Your task to perform on an android device: change notifications settings Image 0: 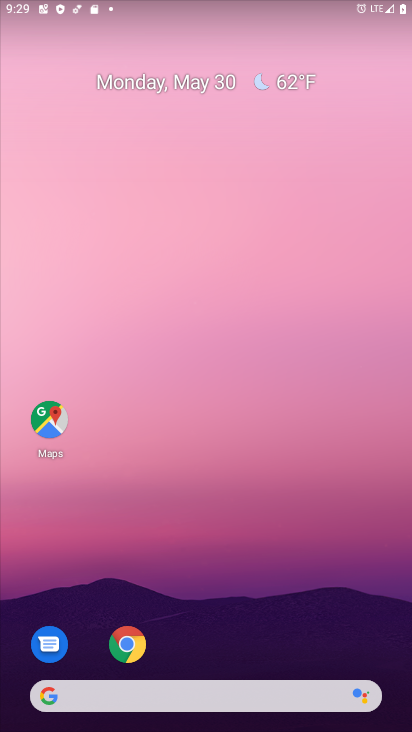
Step 0: drag from (395, 650) to (327, 115)
Your task to perform on an android device: change notifications settings Image 1: 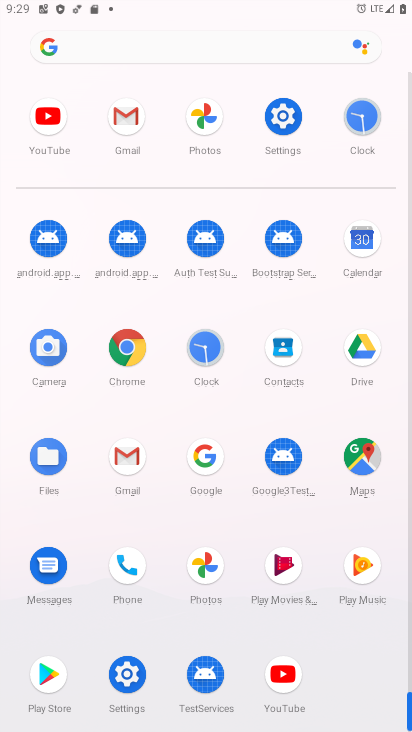
Step 1: click (130, 671)
Your task to perform on an android device: change notifications settings Image 2: 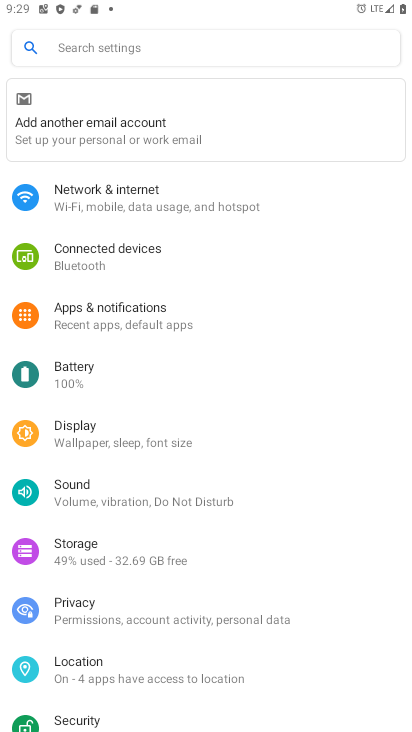
Step 2: click (111, 305)
Your task to perform on an android device: change notifications settings Image 3: 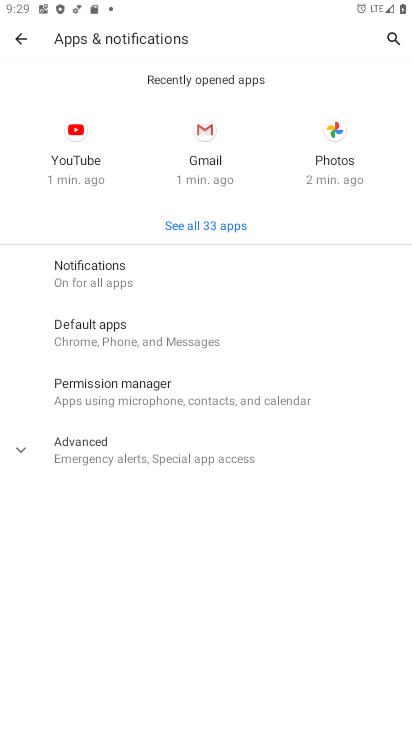
Step 3: click (96, 273)
Your task to perform on an android device: change notifications settings Image 4: 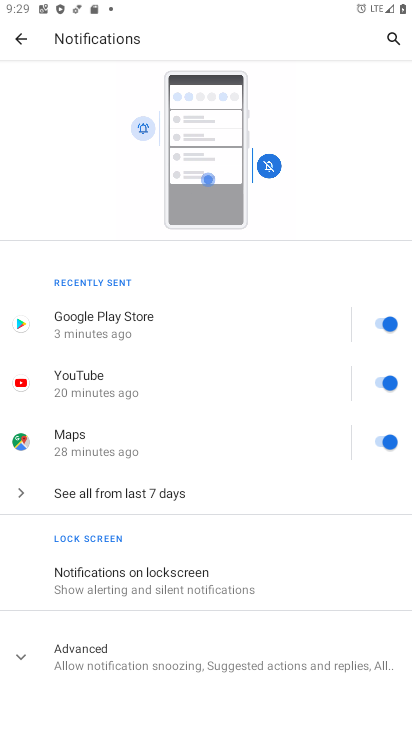
Step 4: click (22, 656)
Your task to perform on an android device: change notifications settings Image 5: 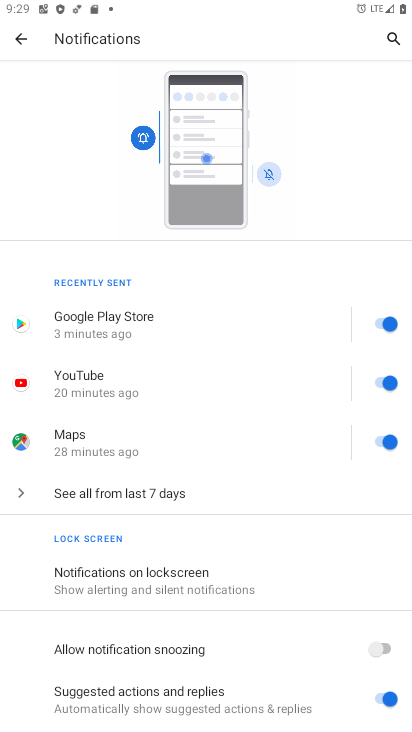
Step 5: drag from (263, 652) to (262, 444)
Your task to perform on an android device: change notifications settings Image 6: 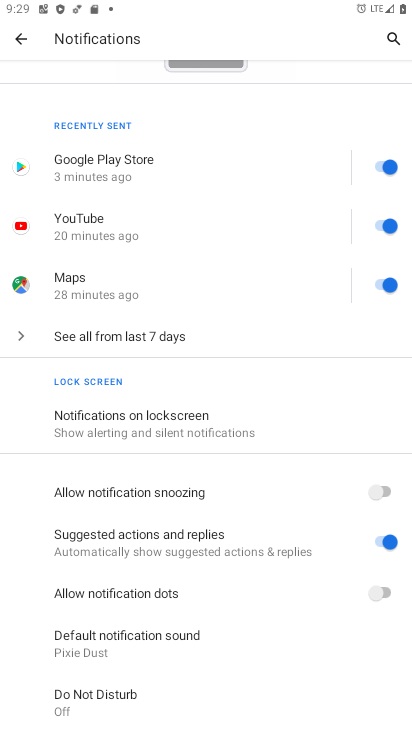
Step 6: drag from (288, 616) to (279, 371)
Your task to perform on an android device: change notifications settings Image 7: 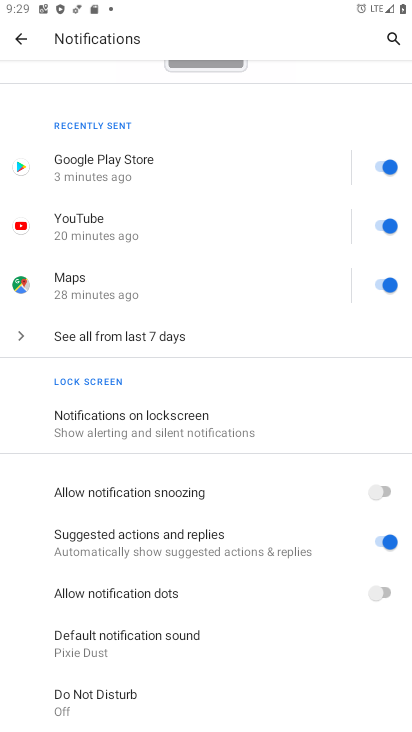
Step 7: click (384, 483)
Your task to perform on an android device: change notifications settings Image 8: 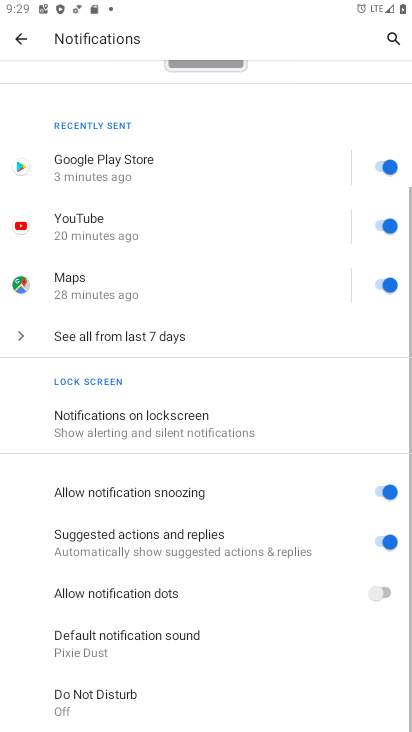
Step 8: click (385, 588)
Your task to perform on an android device: change notifications settings Image 9: 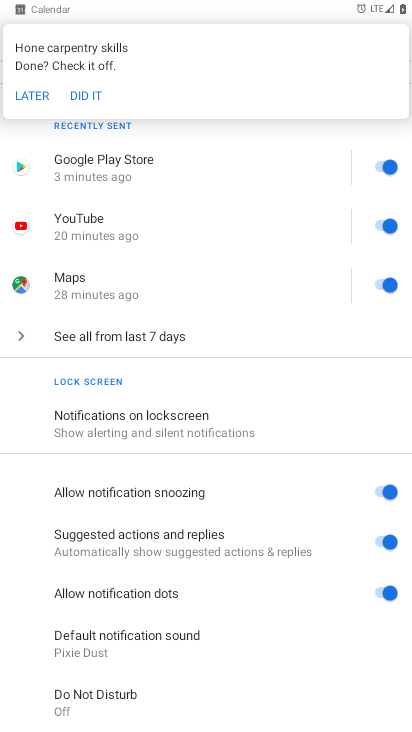
Step 9: task complete